Your task to perform on an android device: Go to Yahoo.com Image 0: 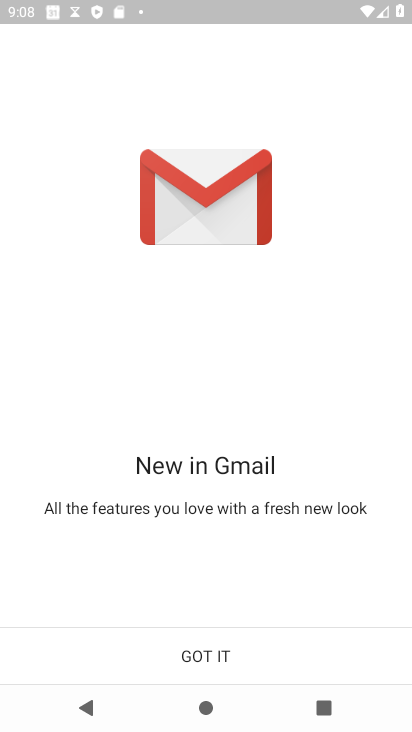
Step 0: press home button
Your task to perform on an android device: Go to Yahoo.com Image 1: 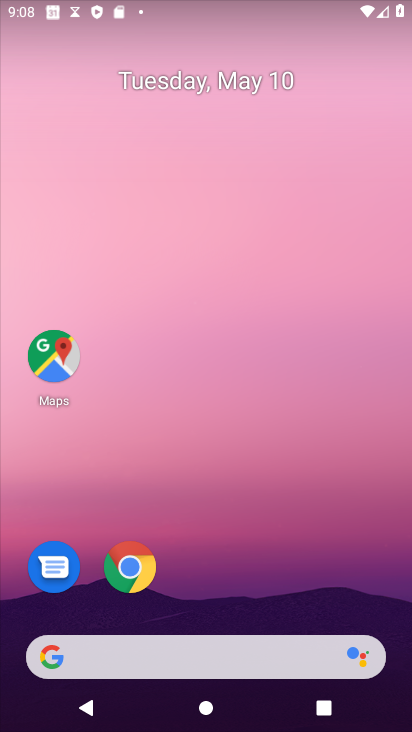
Step 1: click (138, 565)
Your task to perform on an android device: Go to Yahoo.com Image 2: 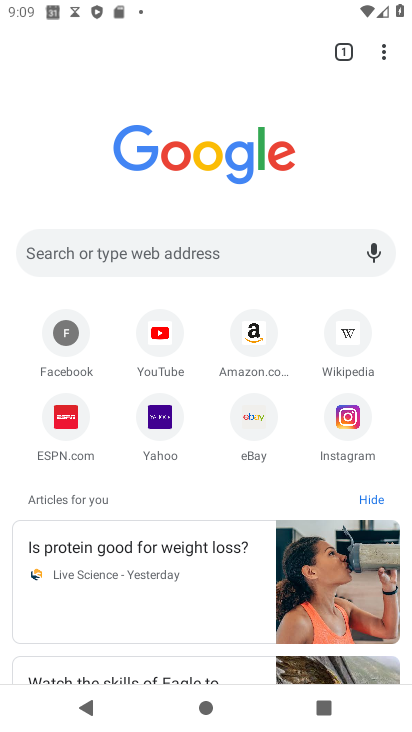
Step 2: click (154, 420)
Your task to perform on an android device: Go to Yahoo.com Image 3: 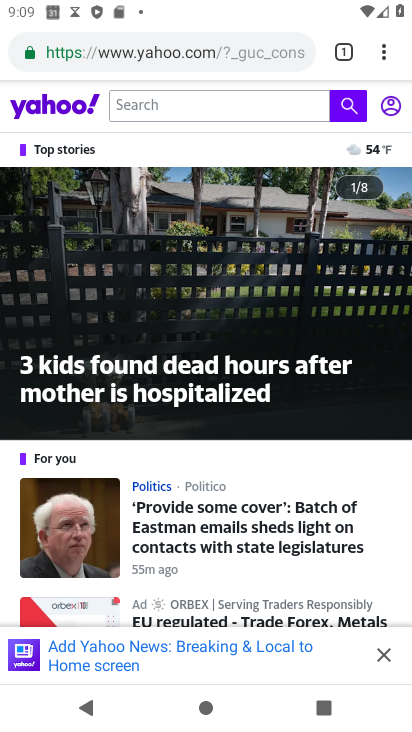
Step 3: task complete